Your task to perform on an android device: Open Reddit.com Image 0: 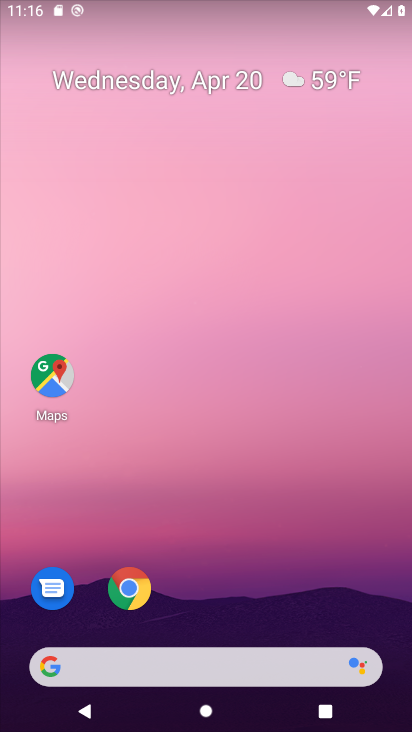
Step 0: click (132, 590)
Your task to perform on an android device: Open Reddit.com Image 1: 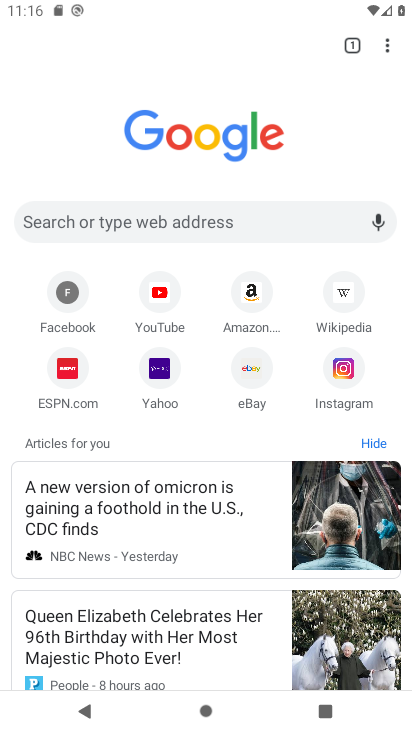
Step 1: click (72, 220)
Your task to perform on an android device: Open Reddit.com Image 2: 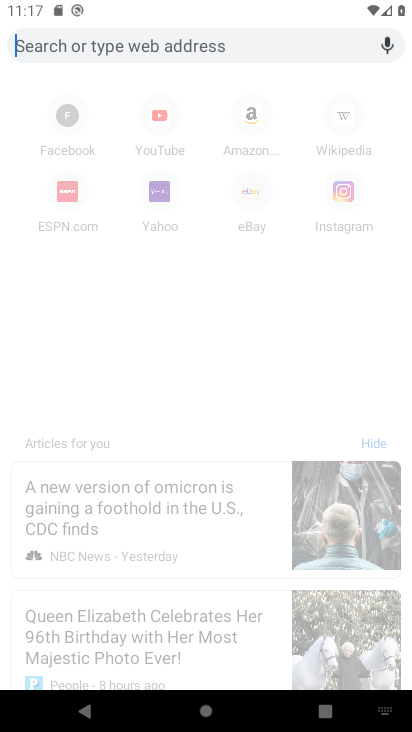
Step 2: type "reddit.com"
Your task to perform on an android device: Open Reddit.com Image 3: 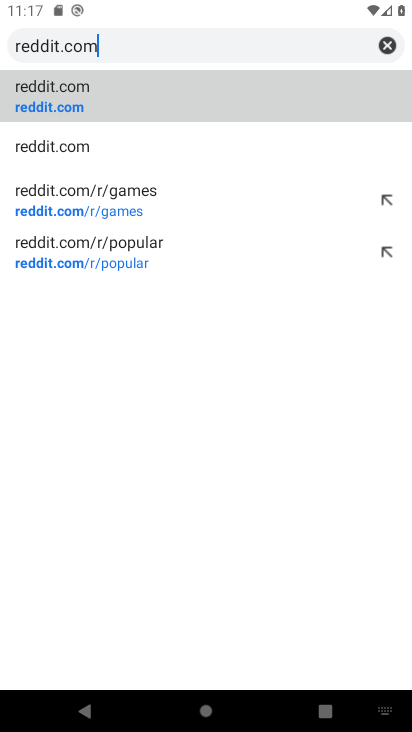
Step 3: click (48, 93)
Your task to perform on an android device: Open Reddit.com Image 4: 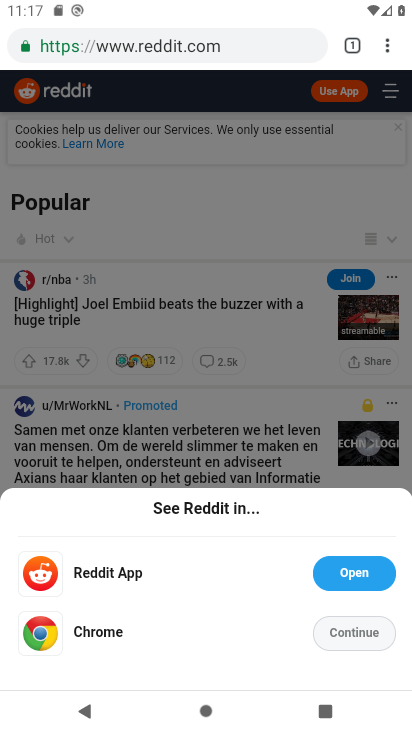
Step 4: task complete